Your task to perform on an android device: Search for vegetarian restaurants on Maps Image 0: 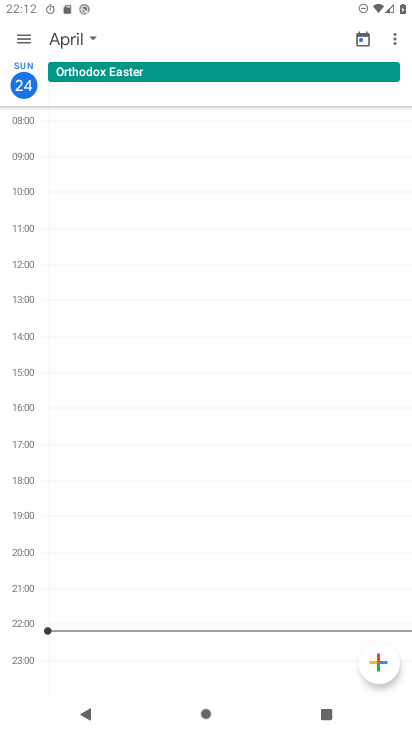
Step 0: press home button
Your task to perform on an android device: Search for vegetarian restaurants on Maps Image 1: 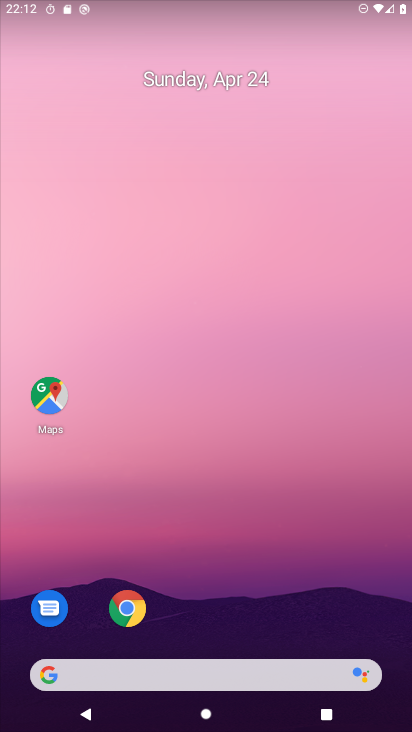
Step 1: click (48, 398)
Your task to perform on an android device: Search for vegetarian restaurants on Maps Image 2: 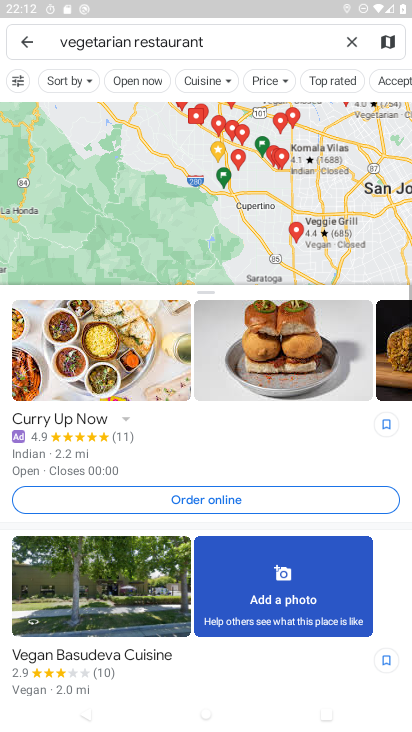
Step 2: task complete